Your task to perform on an android device: toggle priority inbox in the gmail app Image 0: 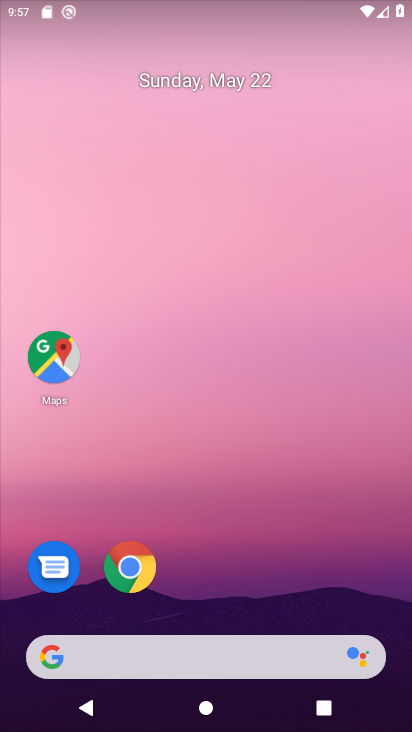
Step 0: press home button
Your task to perform on an android device: toggle priority inbox in the gmail app Image 1: 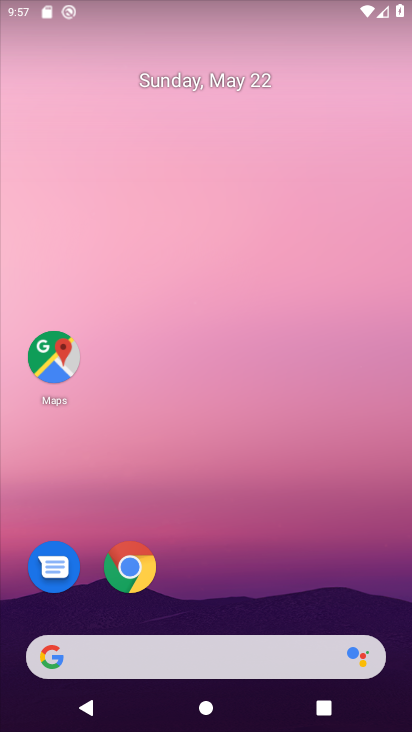
Step 1: drag from (215, 615) to (231, 67)
Your task to perform on an android device: toggle priority inbox in the gmail app Image 2: 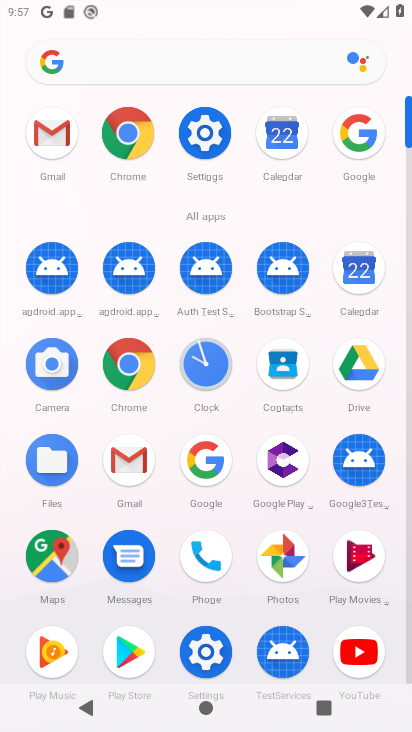
Step 2: click (129, 454)
Your task to perform on an android device: toggle priority inbox in the gmail app Image 3: 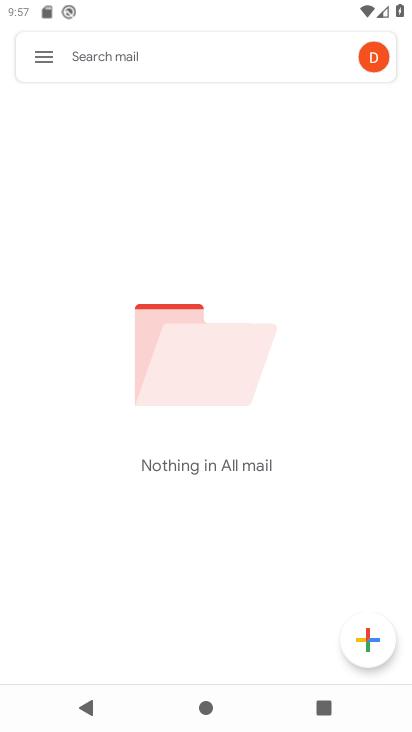
Step 3: click (45, 54)
Your task to perform on an android device: toggle priority inbox in the gmail app Image 4: 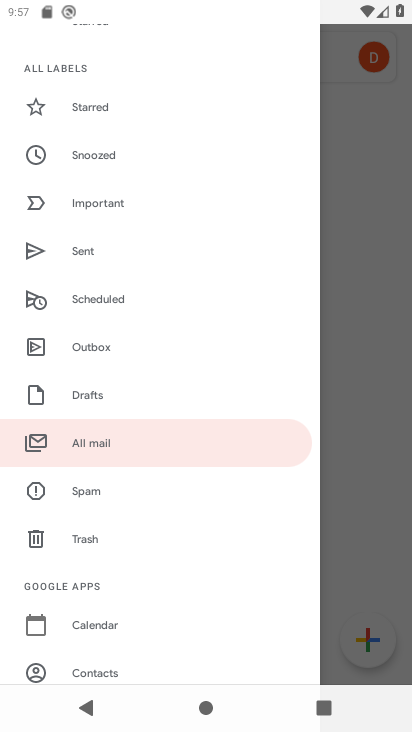
Step 4: drag from (123, 595) to (139, 132)
Your task to perform on an android device: toggle priority inbox in the gmail app Image 5: 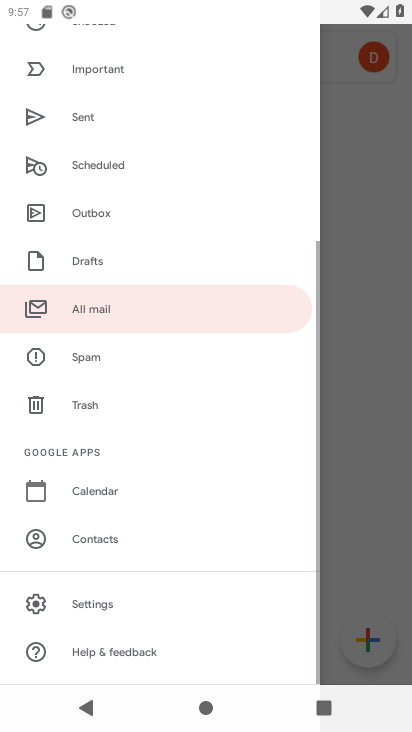
Step 5: click (128, 593)
Your task to perform on an android device: toggle priority inbox in the gmail app Image 6: 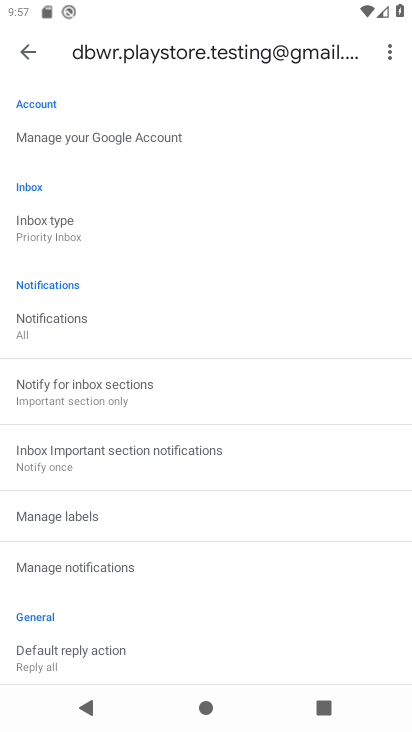
Step 6: click (98, 229)
Your task to perform on an android device: toggle priority inbox in the gmail app Image 7: 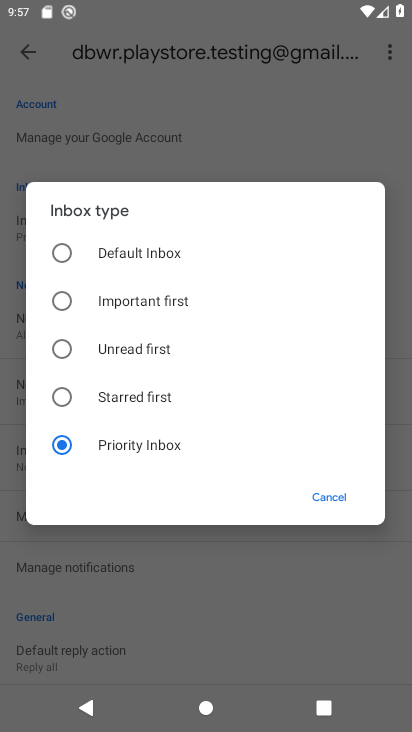
Step 7: click (148, 448)
Your task to perform on an android device: toggle priority inbox in the gmail app Image 8: 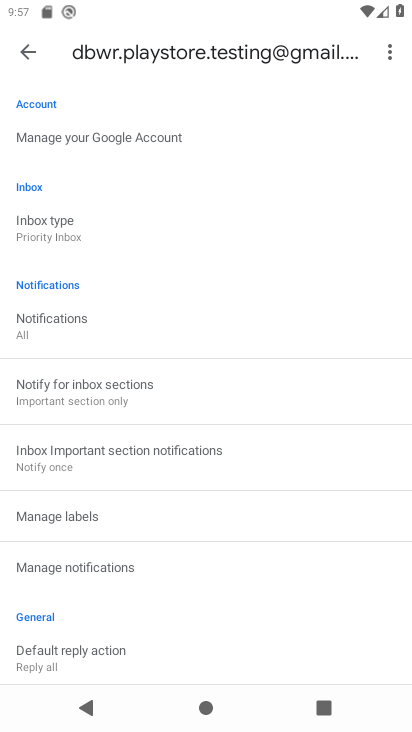
Step 8: task complete